Your task to perform on an android device: Go to ESPN.com Image 0: 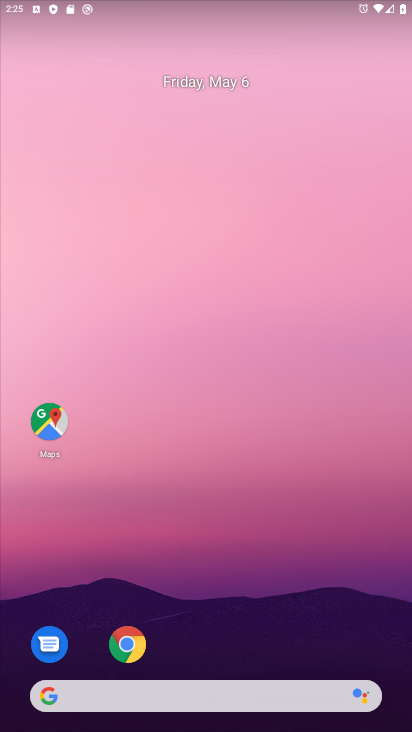
Step 0: click (179, 700)
Your task to perform on an android device: Go to ESPN.com Image 1: 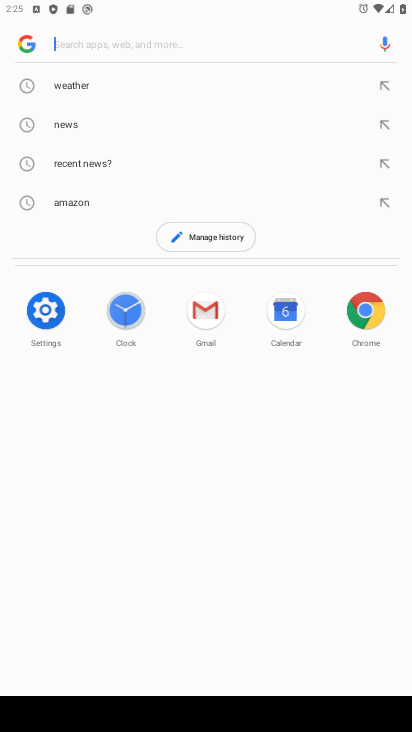
Step 1: type "espn.com"
Your task to perform on an android device: Go to ESPN.com Image 2: 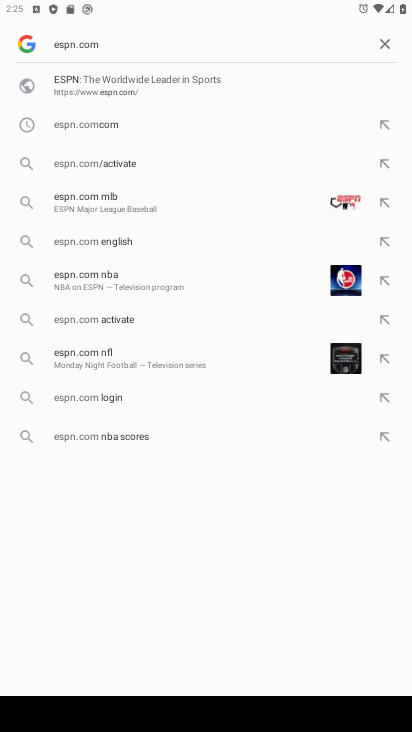
Step 2: click (199, 82)
Your task to perform on an android device: Go to ESPN.com Image 3: 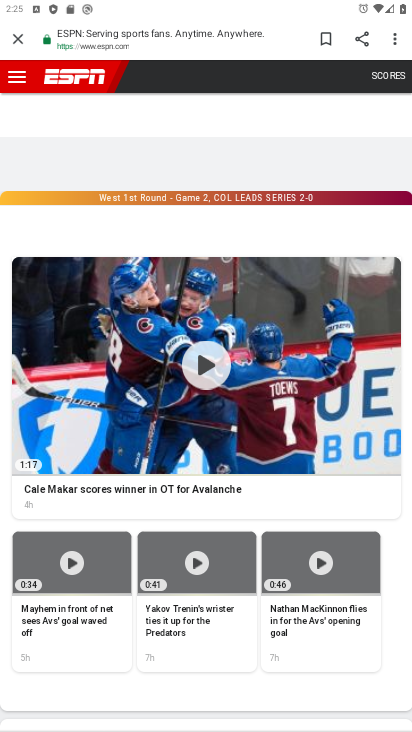
Step 3: task complete